Your task to perform on an android device: uninstall "LinkedIn" Image 0: 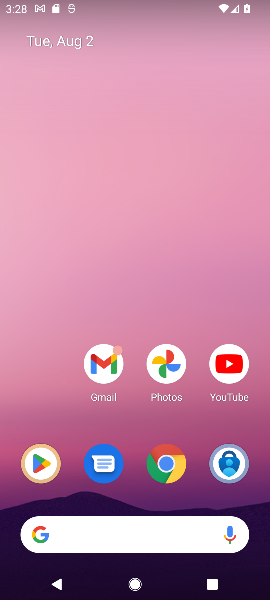
Step 0: press home button
Your task to perform on an android device: uninstall "LinkedIn" Image 1: 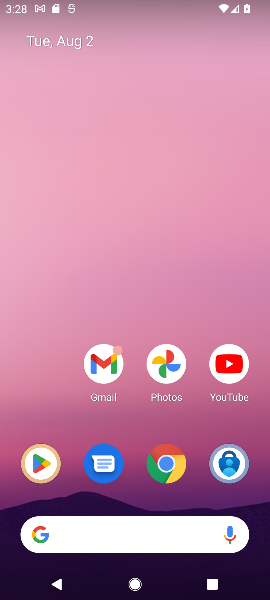
Step 1: click (41, 469)
Your task to perform on an android device: uninstall "LinkedIn" Image 2: 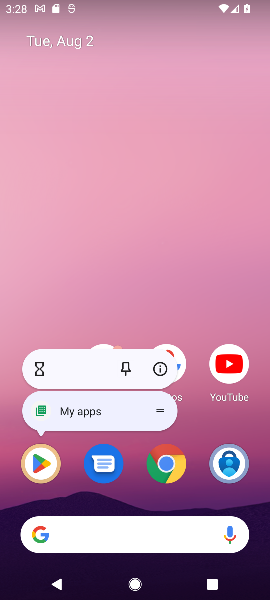
Step 2: click (41, 469)
Your task to perform on an android device: uninstall "LinkedIn" Image 3: 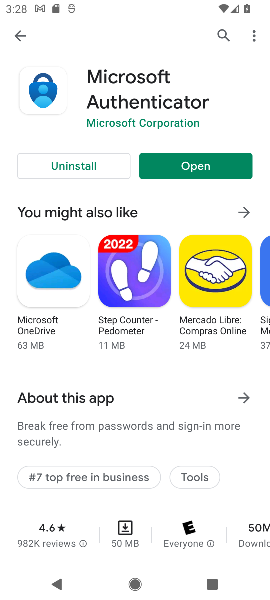
Step 3: click (222, 41)
Your task to perform on an android device: uninstall "LinkedIn" Image 4: 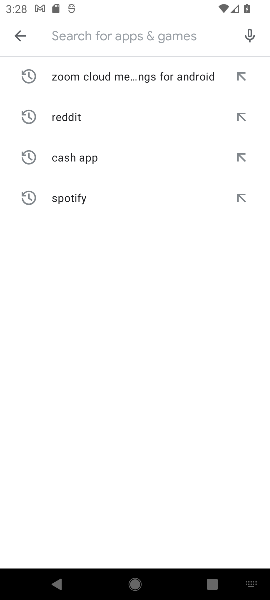
Step 4: type "LinkedIn"
Your task to perform on an android device: uninstall "LinkedIn" Image 5: 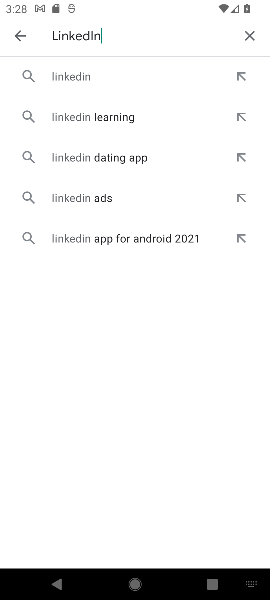
Step 5: click (74, 78)
Your task to perform on an android device: uninstall "LinkedIn" Image 6: 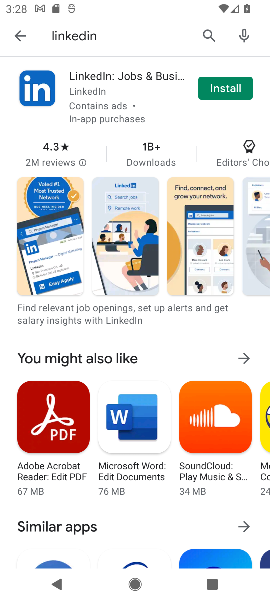
Step 6: task complete